Your task to perform on an android device: move an email to a new category in the gmail app Image 0: 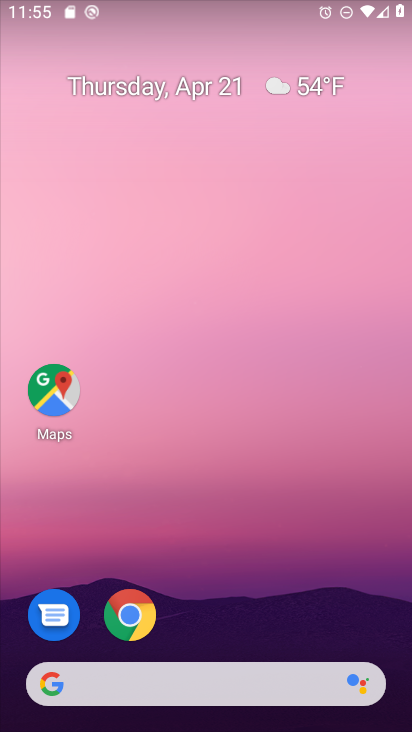
Step 0: drag from (310, 647) to (311, 122)
Your task to perform on an android device: move an email to a new category in the gmail app Image 1: 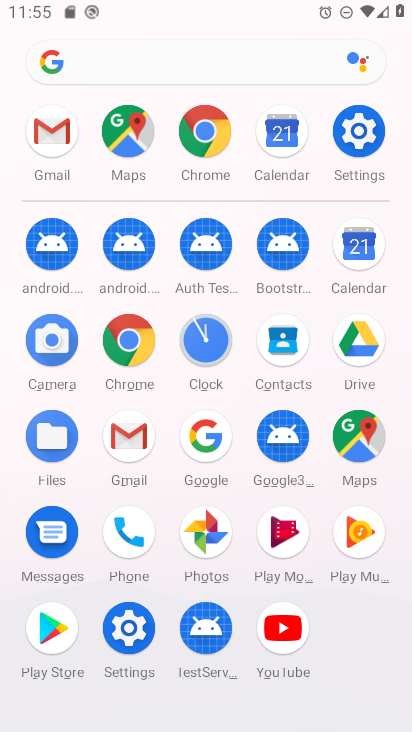
Step 1: click (123, 447)
Your task to perform on an android device: move an email to a new category in the gmail app Image 2: 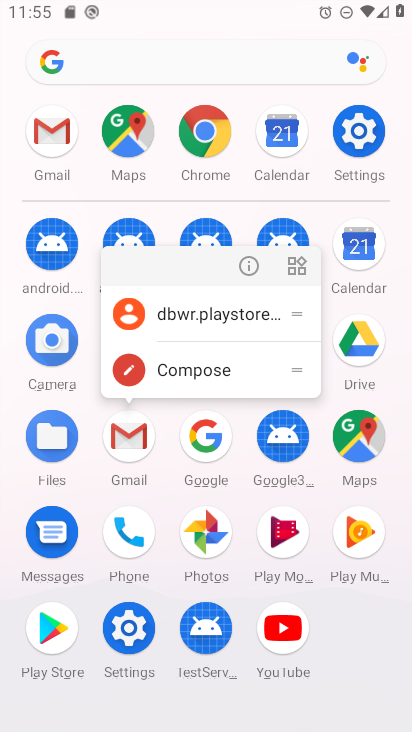
Step 2: click (123, 447)
Your task to perform on an android device: move an email to a new category in the gmail app Image 3: 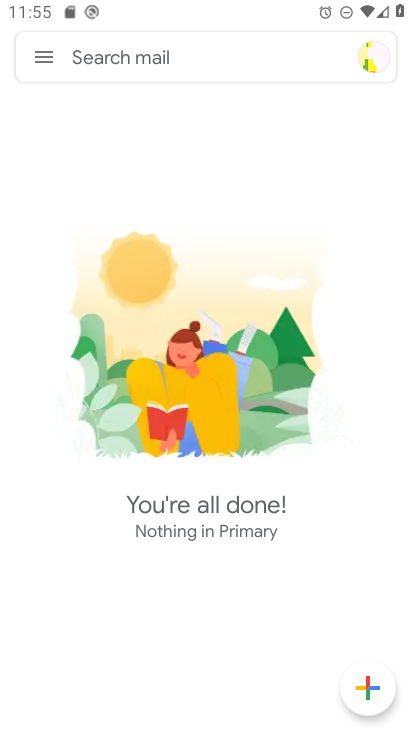
Step 3: click (50, 50)
Your task to perform on an android device: move an email to a new category in the gmail app Image 4: 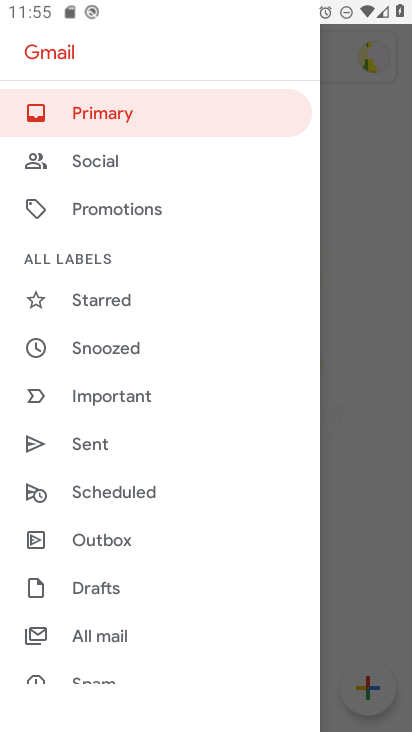
Step 4: click (150, 627)
Your task to perform on an android device: move an email to a new category in the gmail app Image 5: 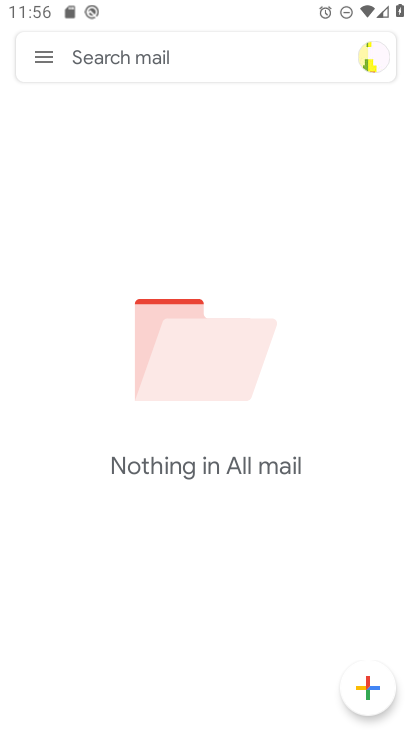
Step 5: task complete